Your task to perform on an android device: Open privacy settings Image 0: 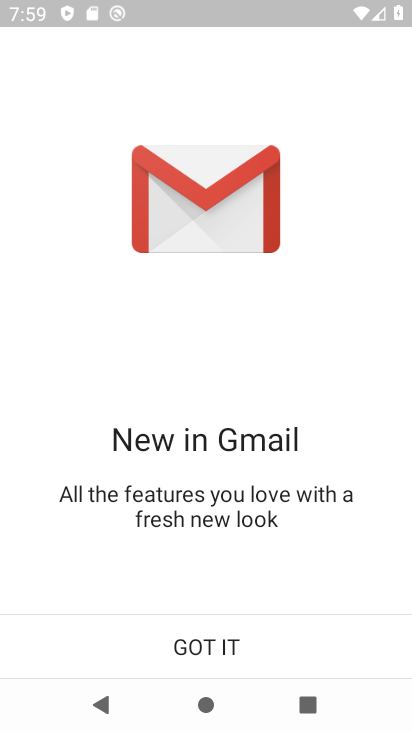
Step 0: task complete